Your task to perform on an android device: Go to Reddit.com Image 0: 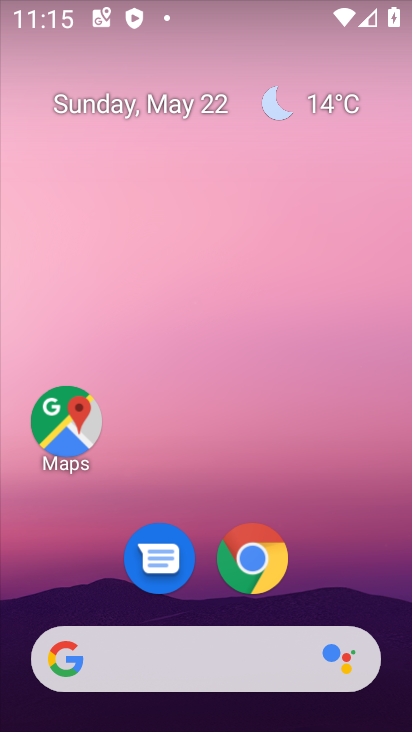
Step 0: click (270, 571)
Your task to perform on an android device: Go to Reddit.com Image 1: 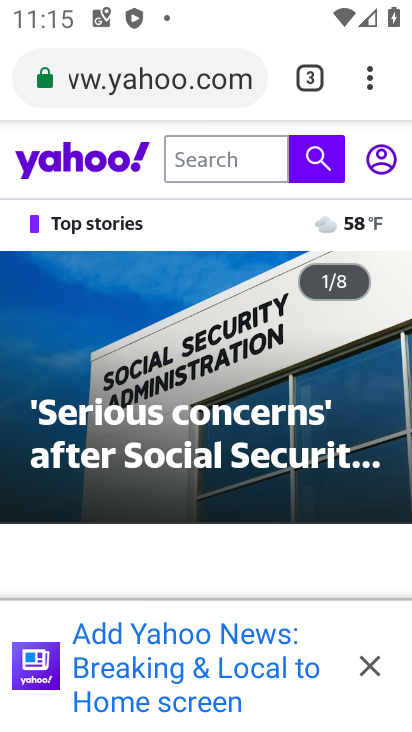
Step 1: click (131, 74)
Your task to perform on an android device: Go to Reddit.com Image 2: 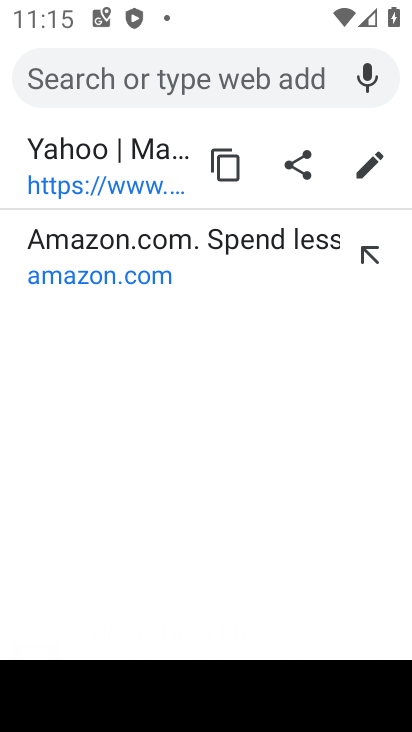
Step 2: type "reddit.com"
Your task to perform on an android device: Go to Reddit.com Image 3: 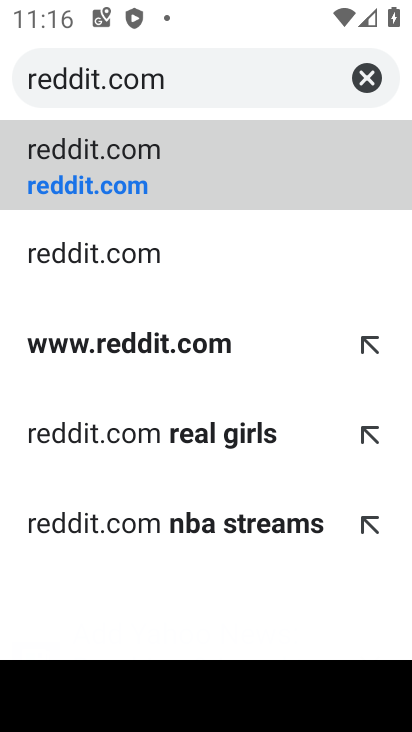
Step 3: click (86, 184)
Your task to perform on an android device: Go to Reddit.com Image 4: 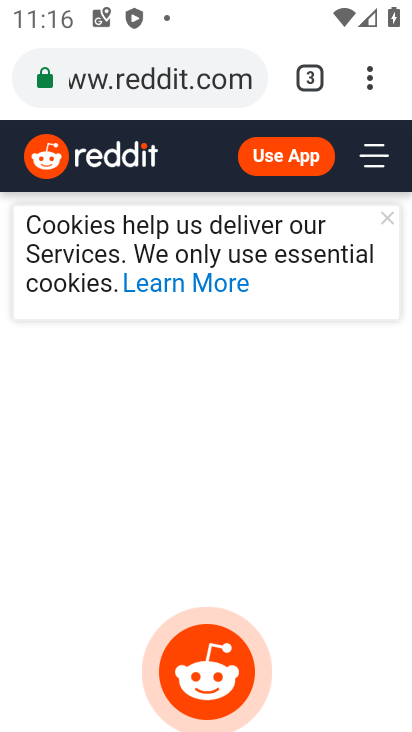
Step 4: task complete